Your task to perform on an android device: Go to calendar. Show me events next week Image 0: 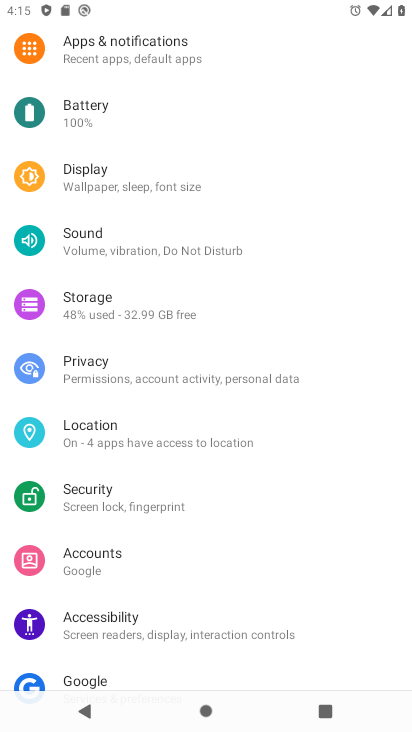
Step 0: press home button
Your task to perform on an android device: Go to calendar. Show me events next week Image 1: 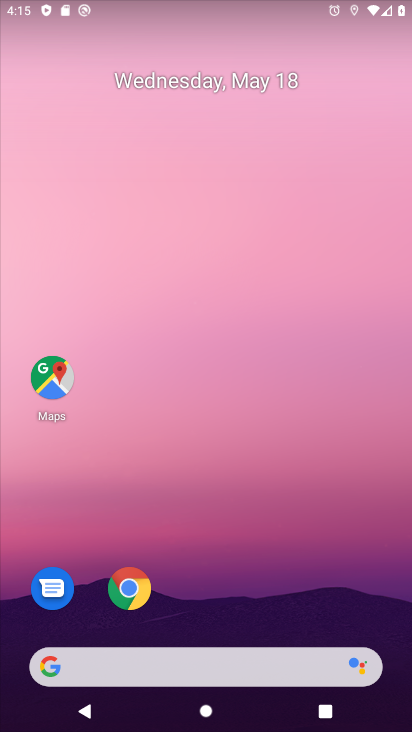
Step 1: drag from (240, 612) to (256, 102)
Your task to perform on an android device: Go to calendar. Show me events next week Image 2: 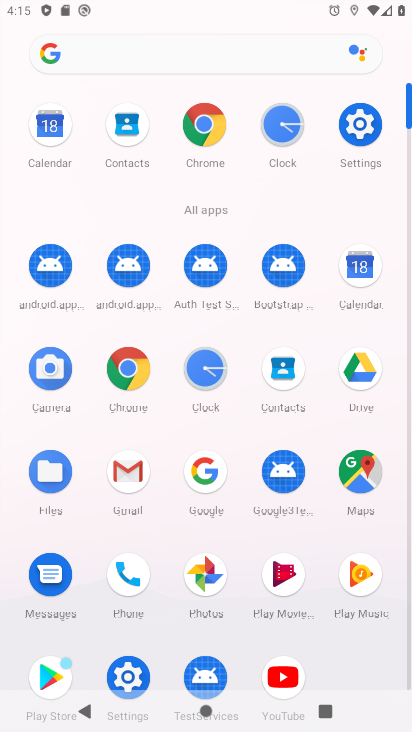
Step 2: click (367, 267)
Your task to perform on an android device: Go to calendar. Show me events next week Image 3: 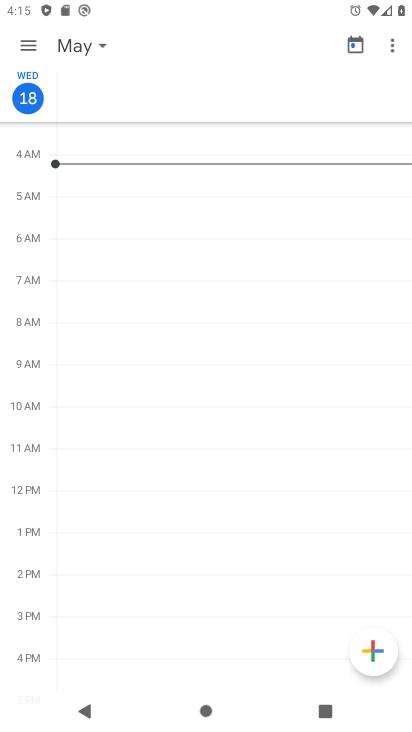
Step 3: click (32, 40)
Your task to perform on an android device: Go to calendar. Show me events next week Image 4: 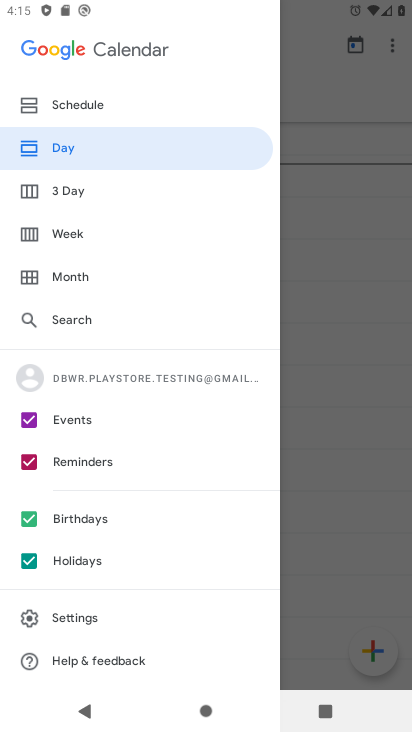
Step 4: click (310, 113)
Your task to perform on an android device: Go to calendar. Show me events next week Image 5: 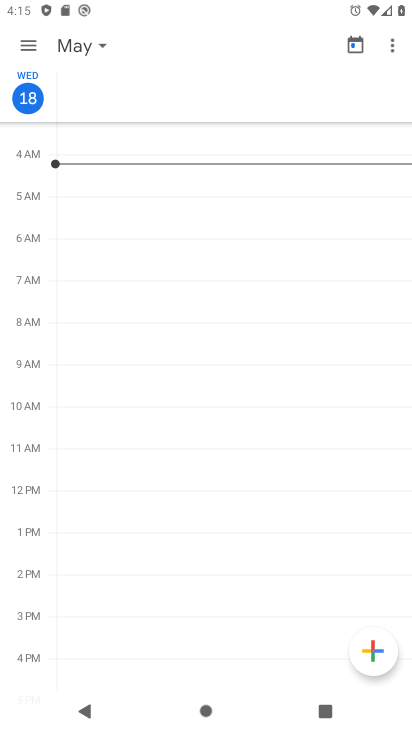
Step 5: click (3, 45)
Your task to perform on an android device: Go to calendar. Show me events next week Image 6: 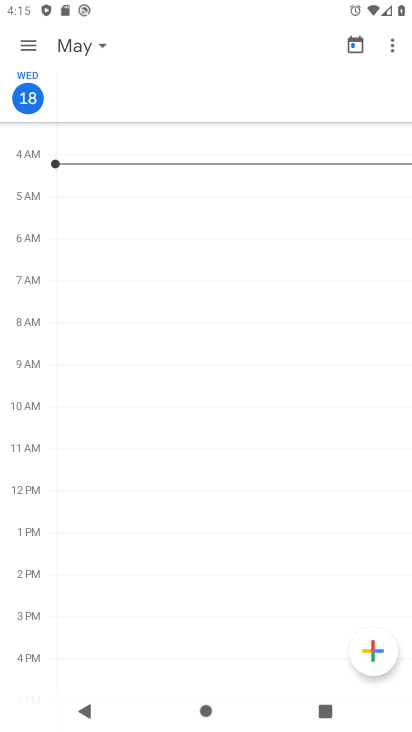
Step 6: click (32, 40)
Your task to perform on an android device: Go to calendar. Show me events next week Image 7: 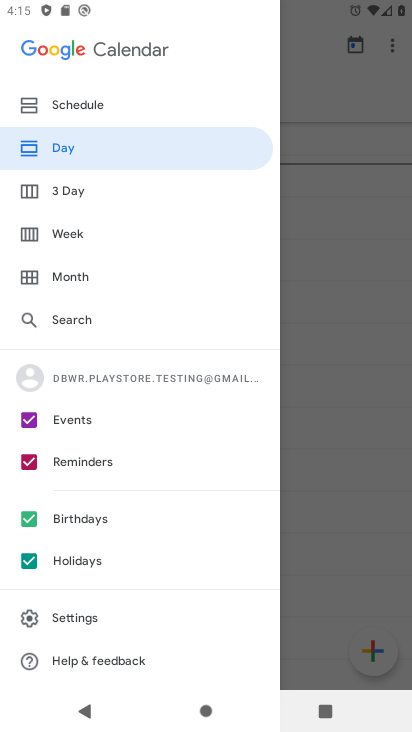
Step 7: click (79, 236)
Your task to perform on an android device: Go to calendar. Show me events next week Image 8: 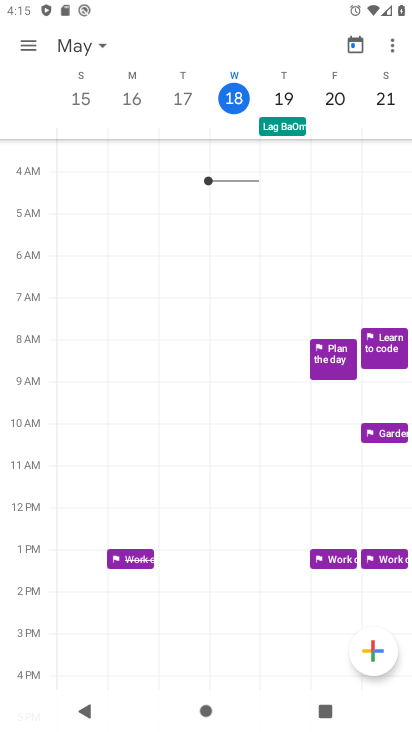
Step 8: task complete